Your task to perform on an android device: open sync settings in chrome Image 0: 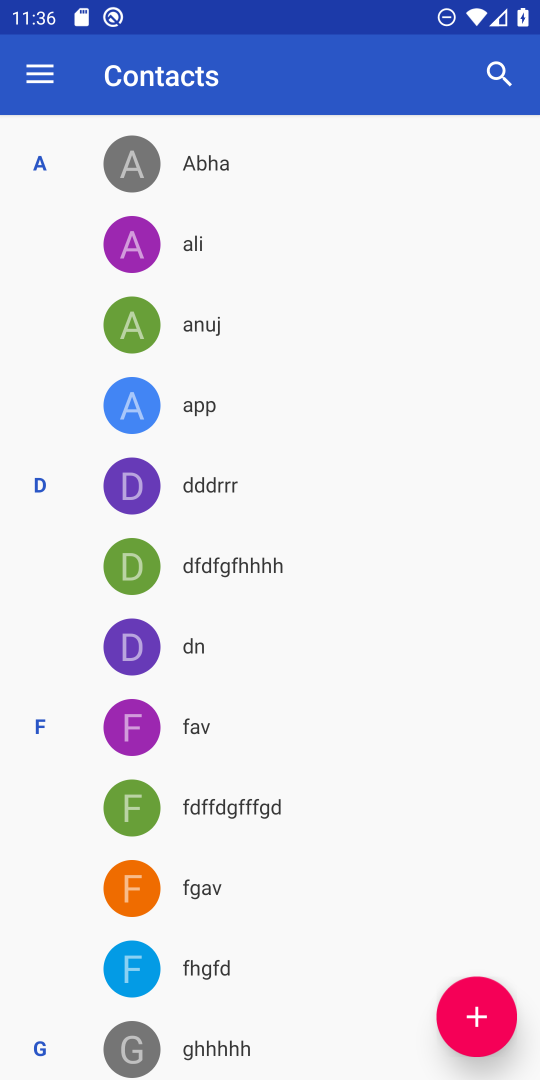
Step 0: press home button
Your task to perform on an android device: open sync settings in chrome Image 1: 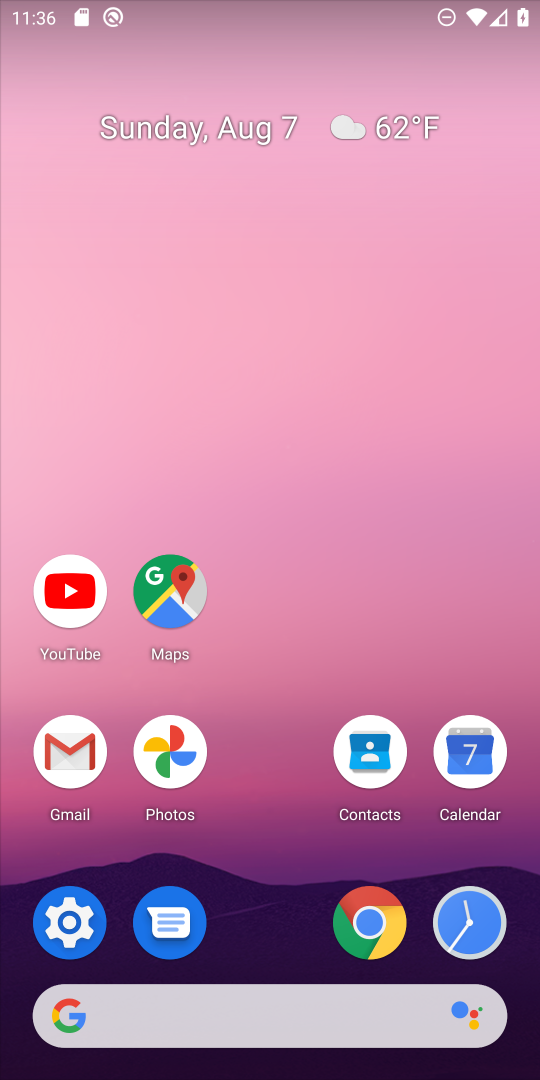
Step 1: click (368, 920)
Your task to perform on an android device: open sync settings in chrome Image 2: 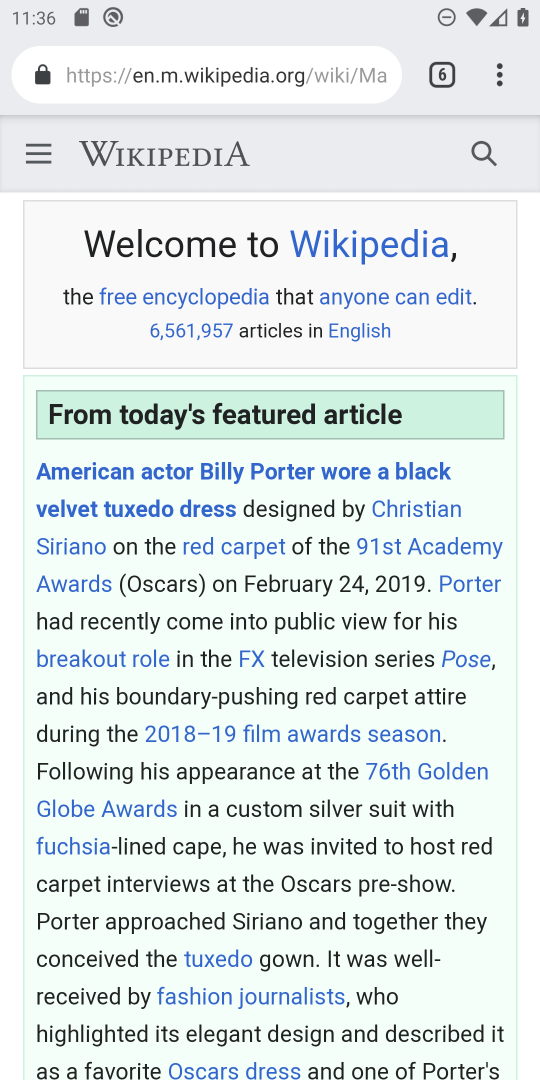
Step 2: click (501, 69)
Your task to perform on an android device: open sync settings in chrome Image 3: 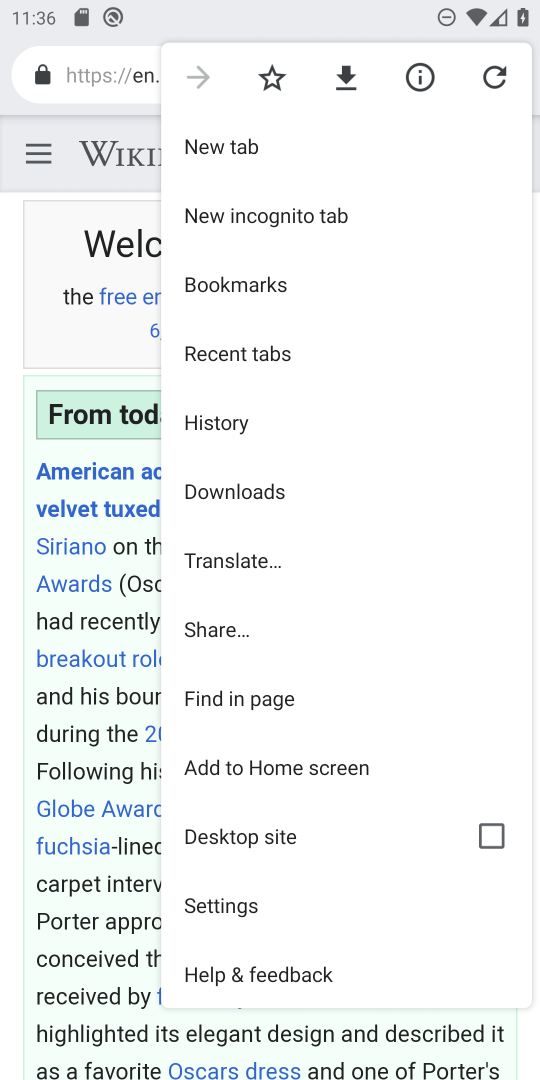
Step 3: click (224, 899)
Your task to perform on an android device: open sync settings in chrome Image 4: 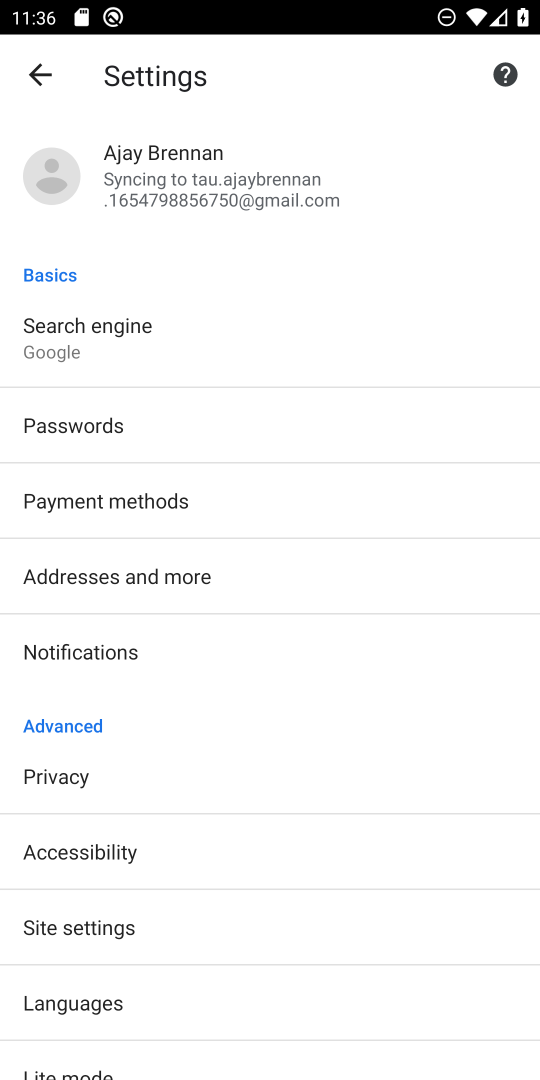
Step 4: click (174, 143)
Your task to perform on an android device: open sync settings in chrome Image 5: 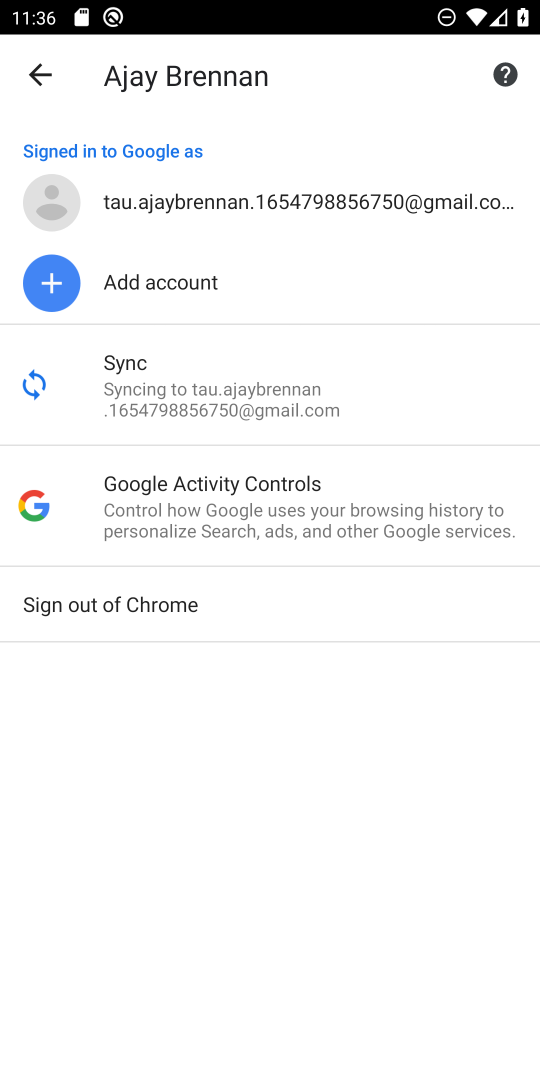
Step 5: click (136, 363)
Your task to perform on an android device: open sync settings in chrome Image 6: 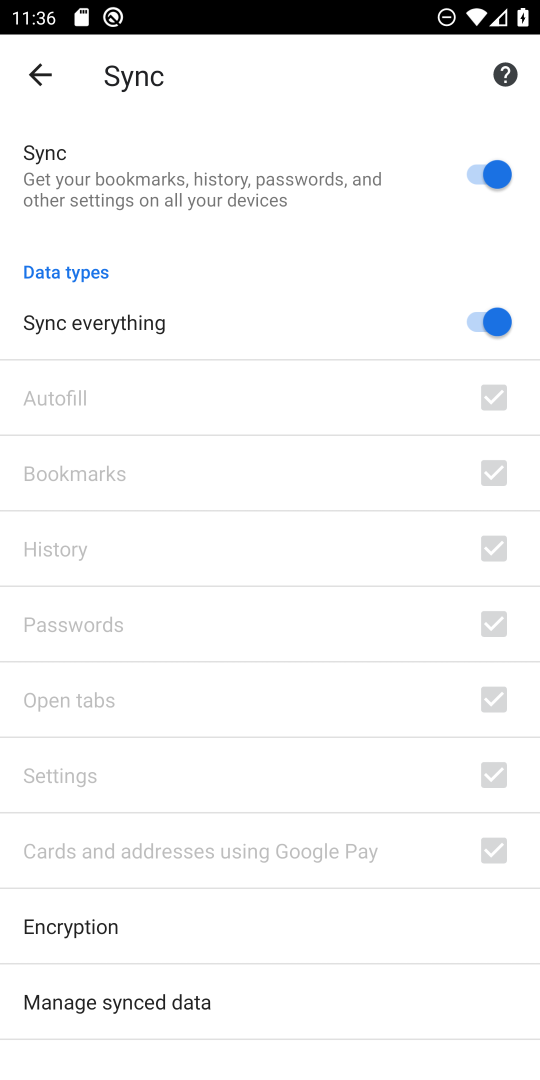
Step 6: task complete